Your task to perform on an android device: Check my email Image 0: 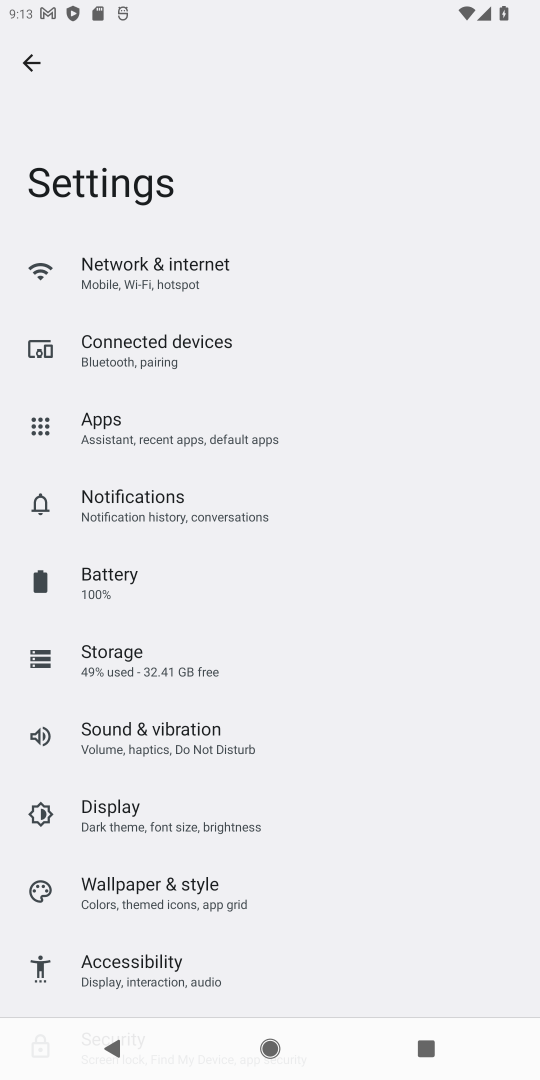
Step 0: press home button
Your task to perform on an android device: Check my email Image 1: 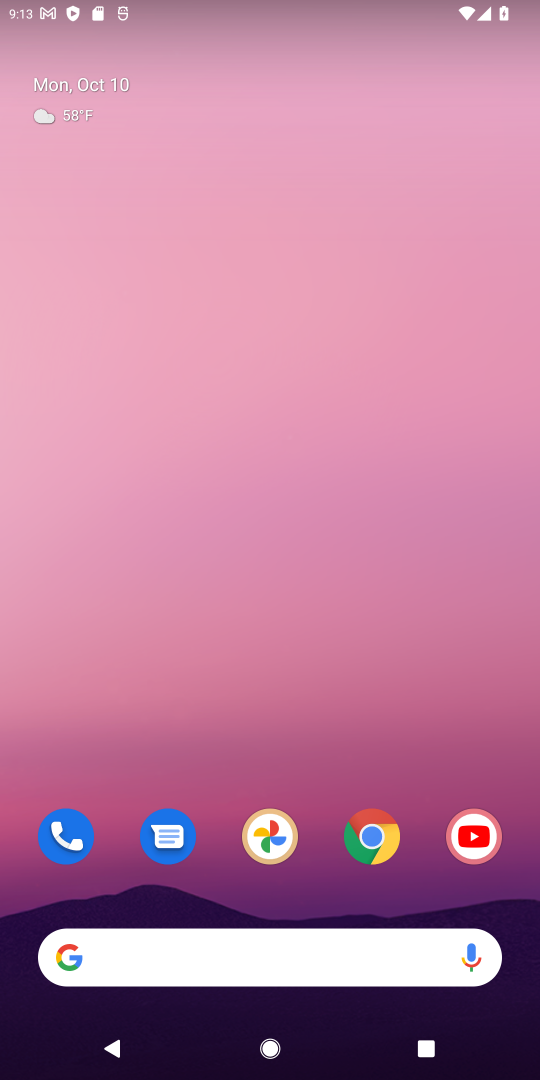
Step 1: drag from (305, 738) to (328, 245)
Your task to perform on an android device: Check my email Image 2: 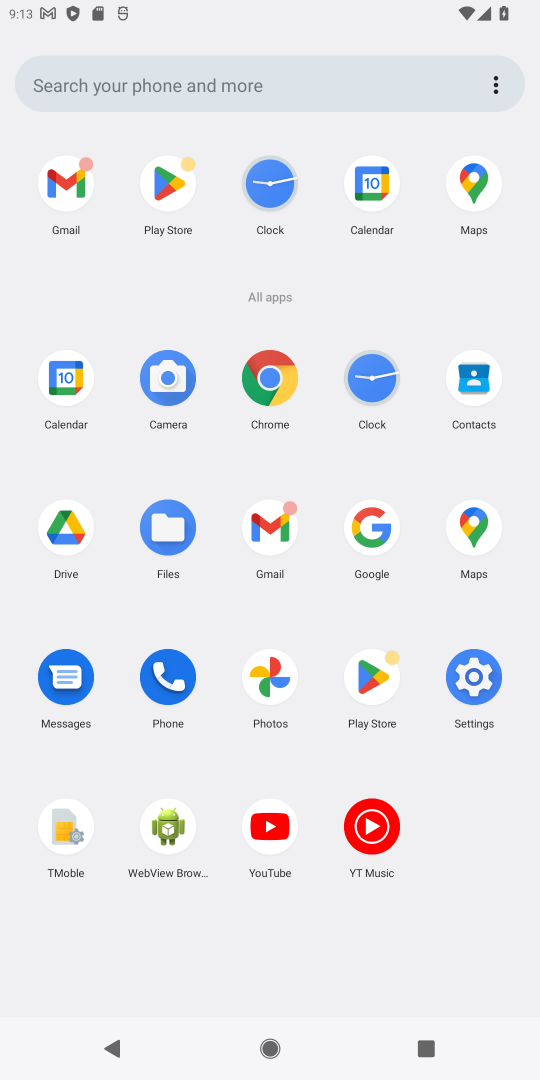
Step 2: click (292, 524)
Your task to perform on an android device: Check my email Image 3: 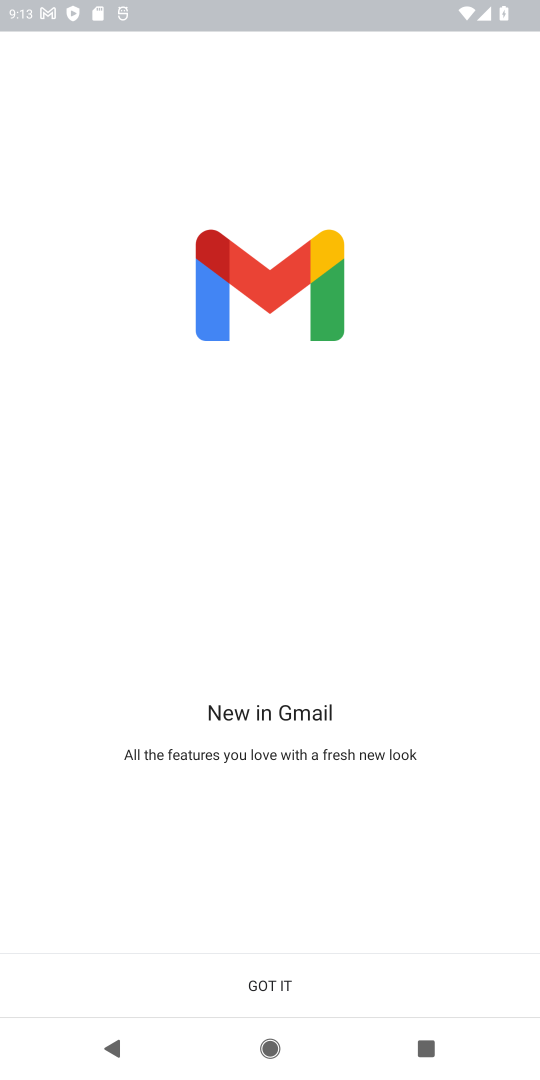
Step 3: click (271, 996)
Your task to perform on an android device: Check my email Image 4: 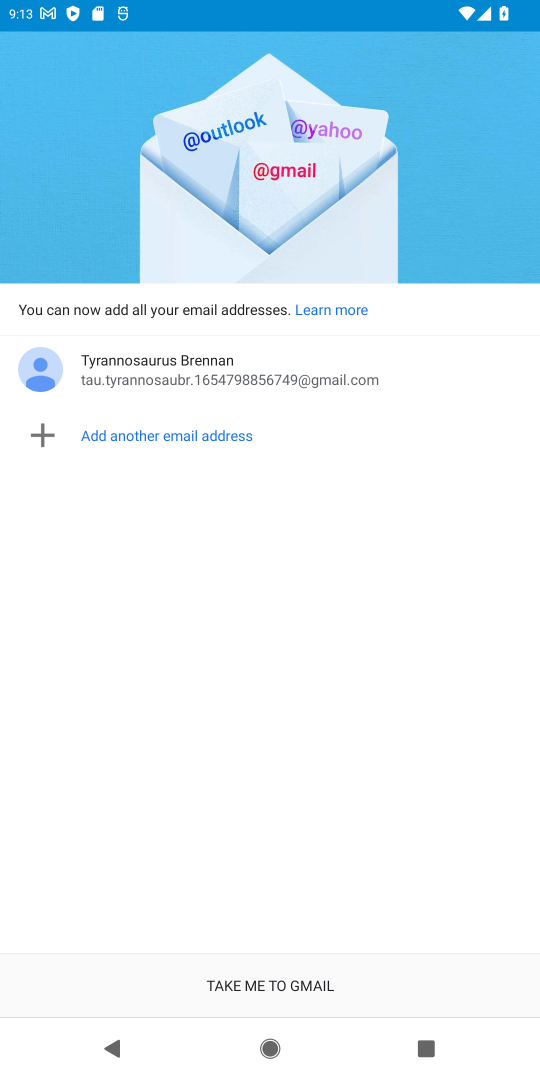
Step 4: click (269, 992)
Your task to perform on an android device: Check my email Image 5: 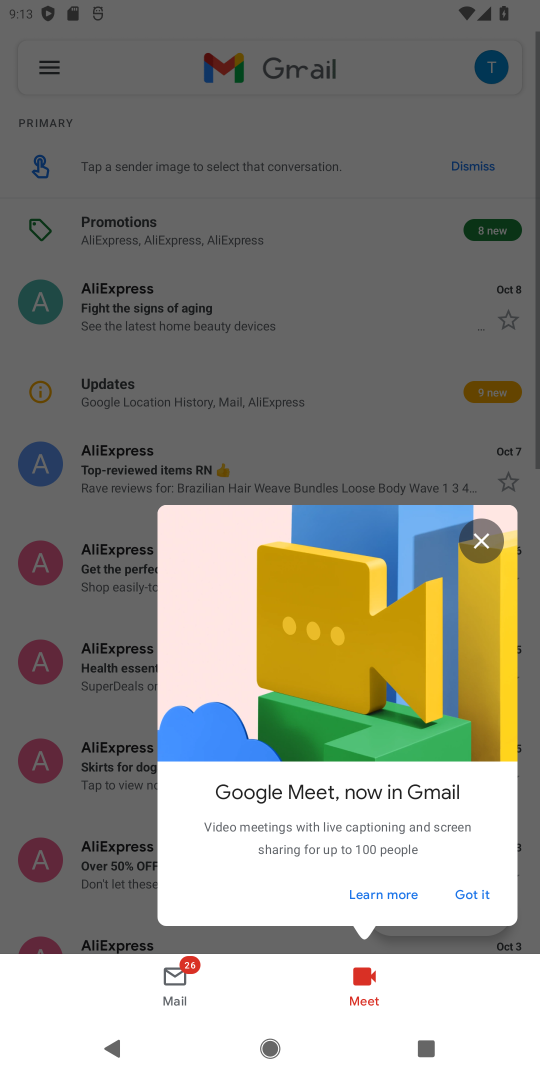
Step 5: click (501, 897)
Your task to perform on an android device: Check my email Image 6: 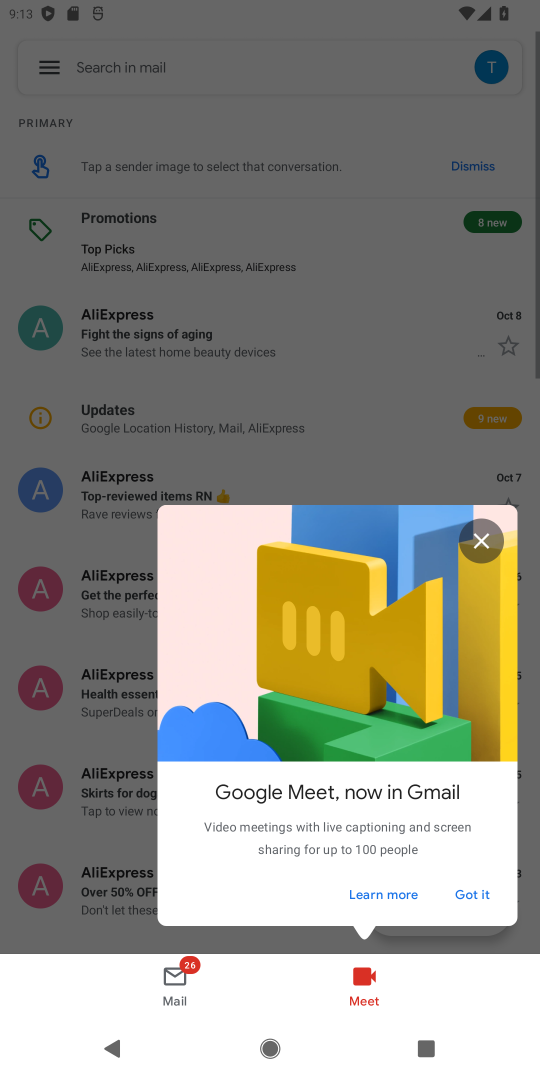
Step 6: click (482, 895)
Your task to perform on an android device: Check my email Image 7: 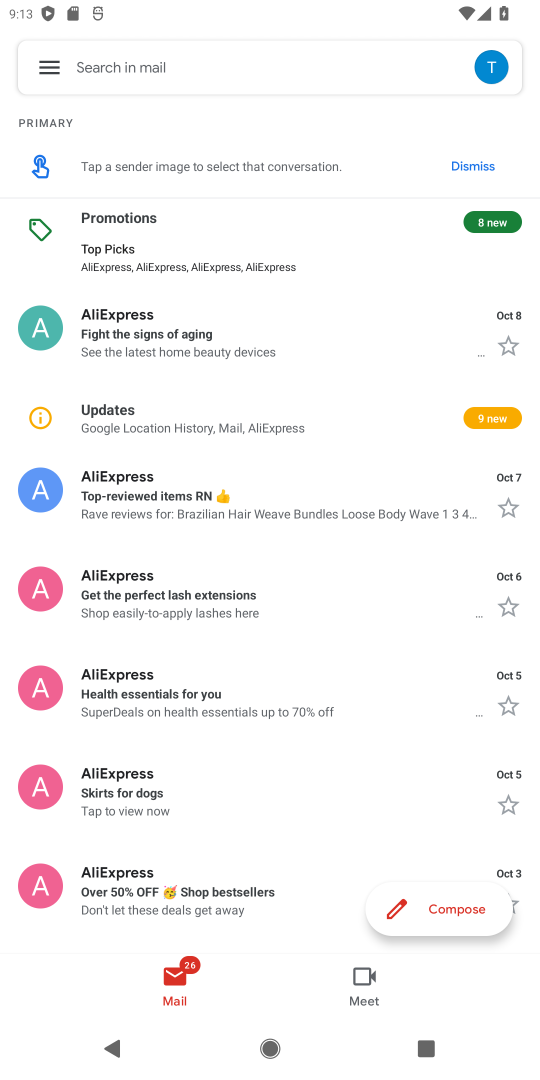
Step 7: task complete